Your task to perform on an android device: find snoozed emails in the gmail app Image 0: 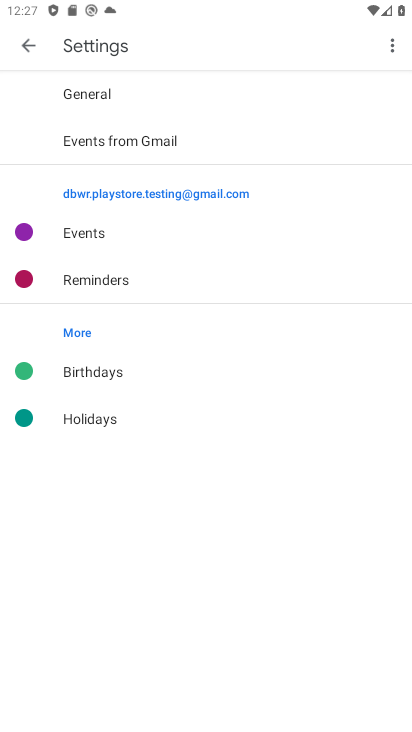
Step 0: press home button
Your task to perform on an android device: find snoozed emails in the gmail app Image 1: 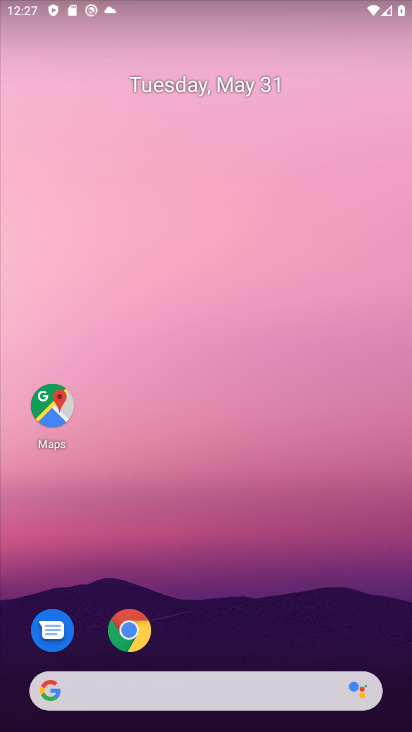
Step 1: drag from (208, 652) to (257, 127)
Your task to perform on an android device: find snoozed emails in the gmail app Image 2: 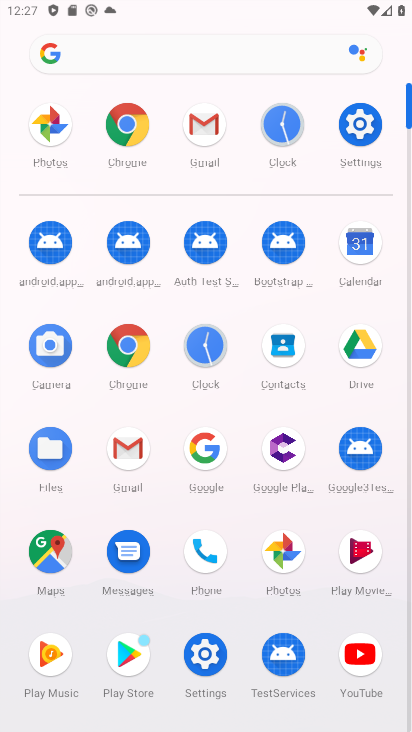
Step 2: click (200, 134)
Your task to perform on an android device: find snoozed emails in the gmail app Image 3: 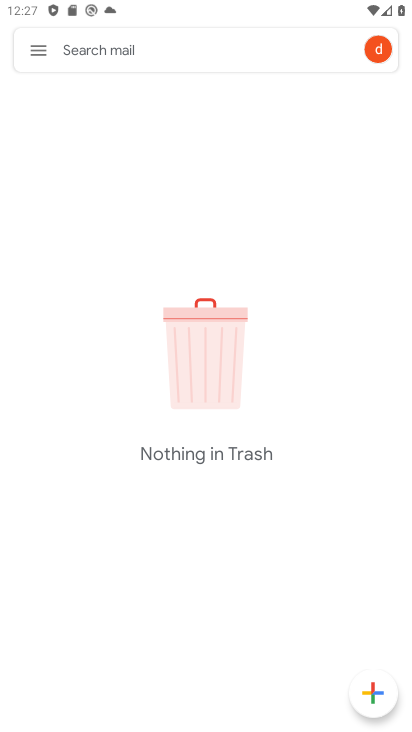
Step 3: click (42, 55)
Your task to perform on an android device: find snoozed emails in the gmail app Image 4: 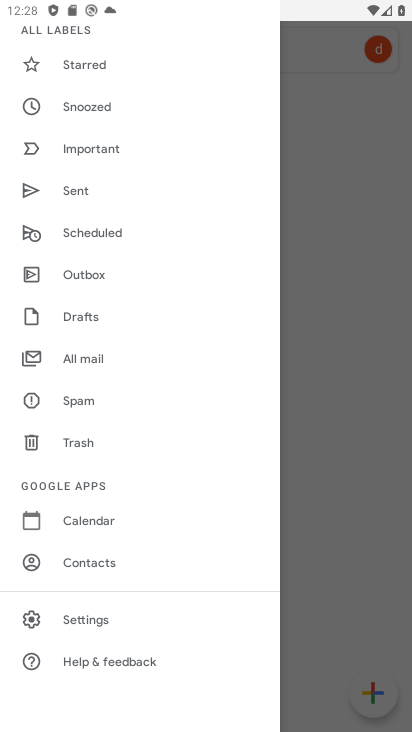
Step 4: click (88, 102)
Your task to perform on an android device: find snoozed emails in the gmail app Image 5: 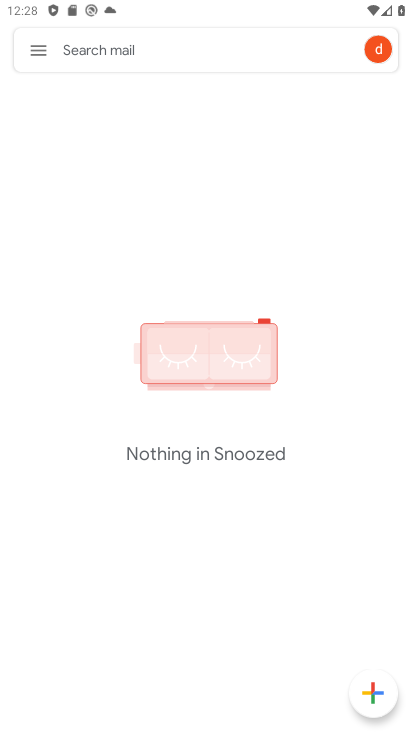
Step 5: task complete